Your task to perform on an android device: toggle sleep mode Image 0: 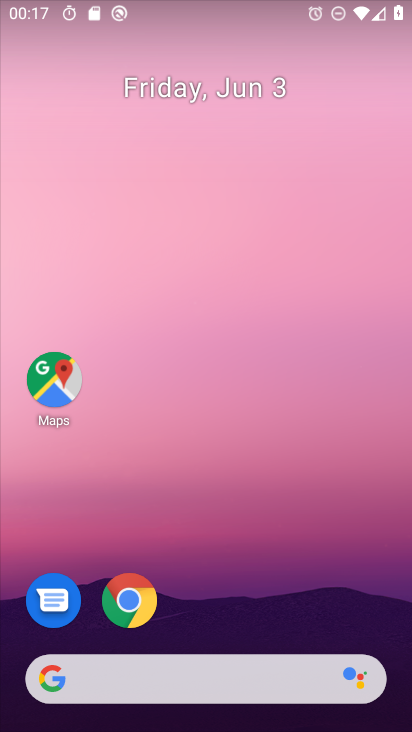
Step 0: drag from (221, 586) to (198, 140)
Your task to perform on an android device: toggle sleep mode Image 1: 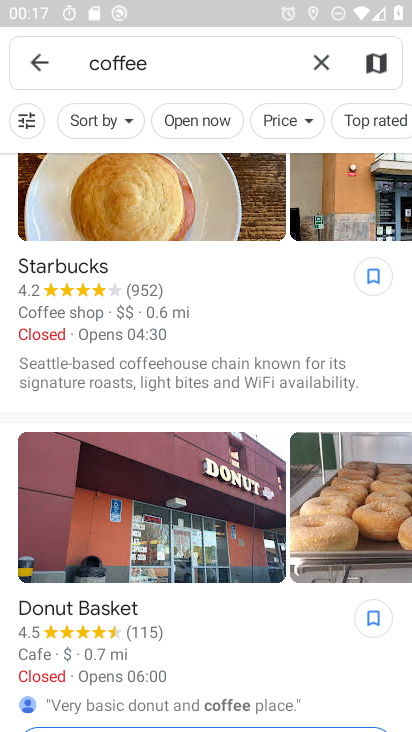
Step 1: press home button
Your task to perform on an android device: toggle sleep mode Image 2: 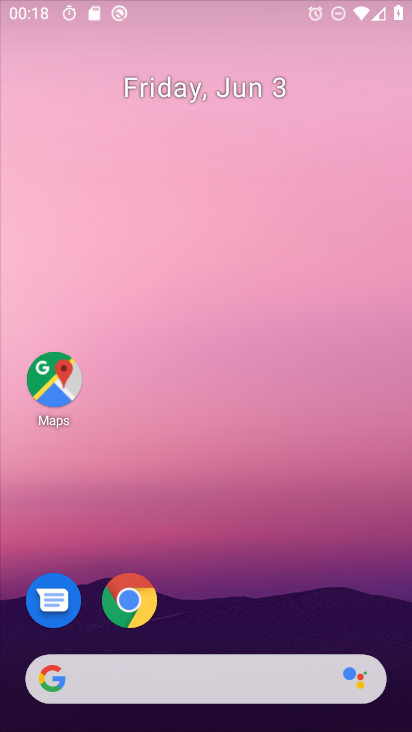
Step 2: drag from (226, 571) to (277, 39)
Your task to perform on an android device: toggle sleep mode Image 3: 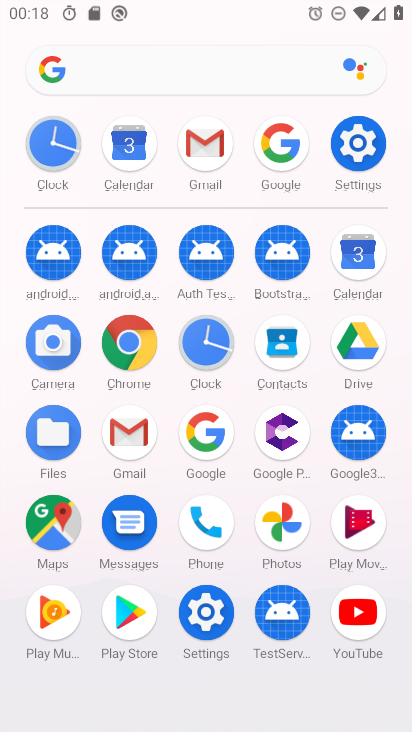
Step 3: click (359, 140)
Your task to perform on an android device: toggle sleep mode Image 4: 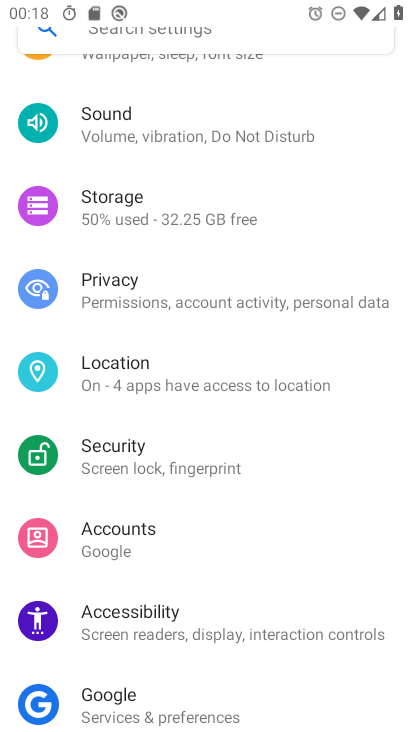
Step 4: drag from (146, 137) to (151, 462)
Your task to perform on an android device: toggle sleep mode Image 5: 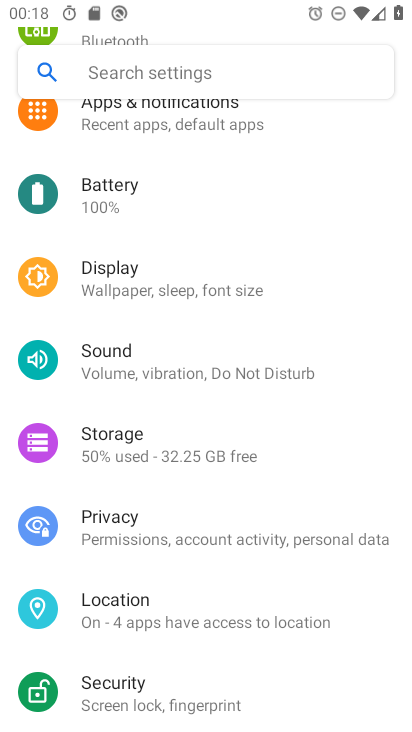
Step 5: click (170, 288)
Your task to perform on an android device: toggle sleep mode Image 6: 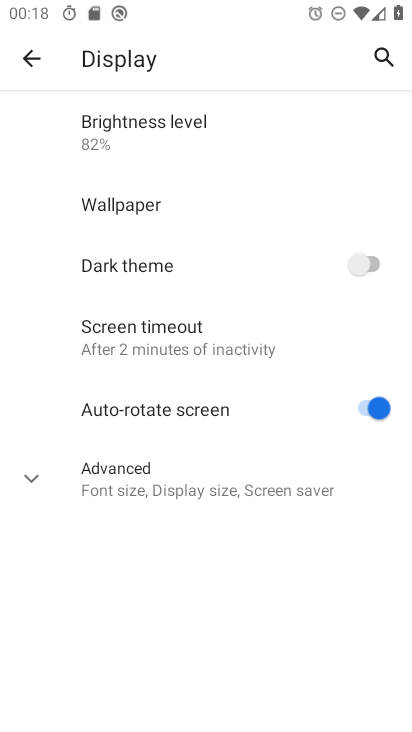
Step 6: click (192, 350)
Your task to perform on an android device: toggle sleep mode Image 7: 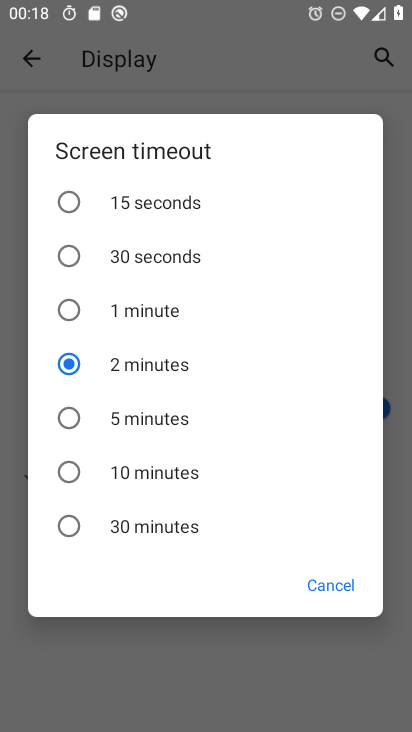
Step 7: click (77, 309)
Your task to perform on an android device: toggle sleep mode Image 8: 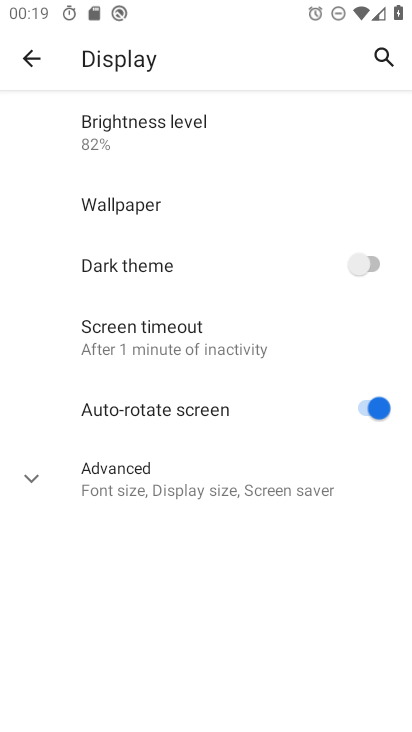
Step 8: task complete